Your task to perform on an android device: open wifi settings Image 0: 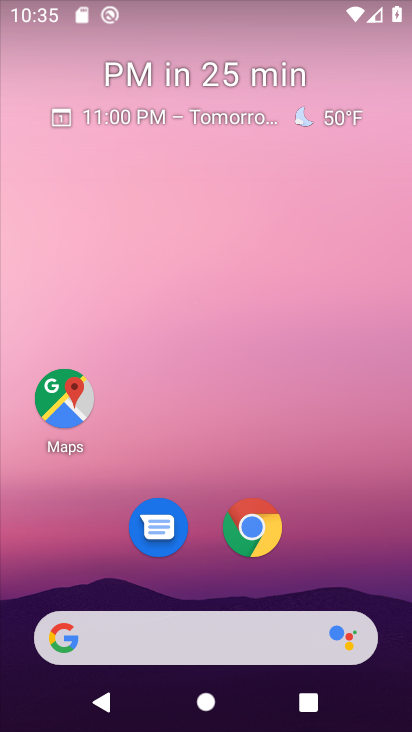
Step 0: drag from (261, 11) to (316, 325)
Your task to perform on an android device: open wifi settings Image 1: 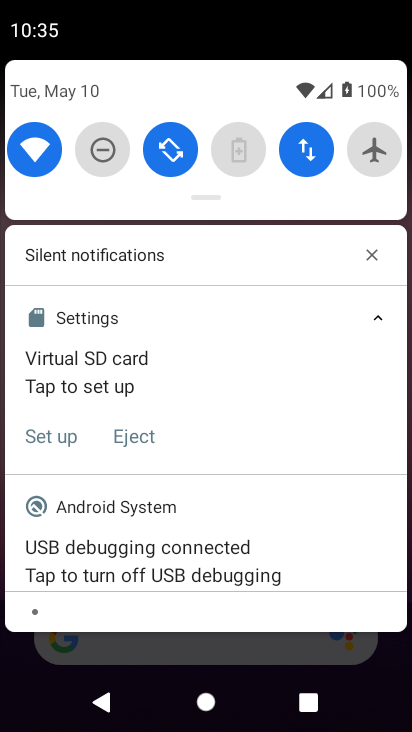
Step 1: click (45, 150)
Your task to perform on an android device: open wifi settings Image 2: 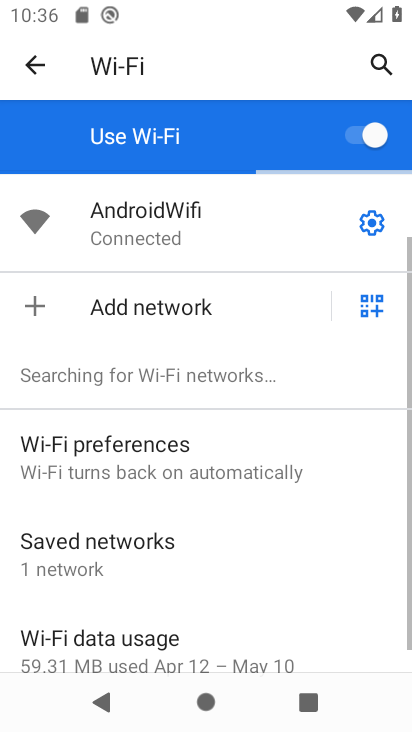
Step 2: task complete